Your task to perform on an android device: Go to ESPN.com Image 0: 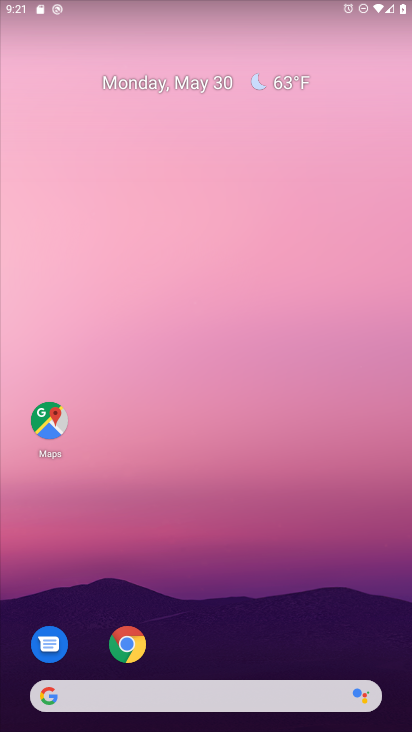
Step 0: drag from (216, 637) to (264, 4)
Your task to perform on an android device: Go to ESPN.com Image 1: 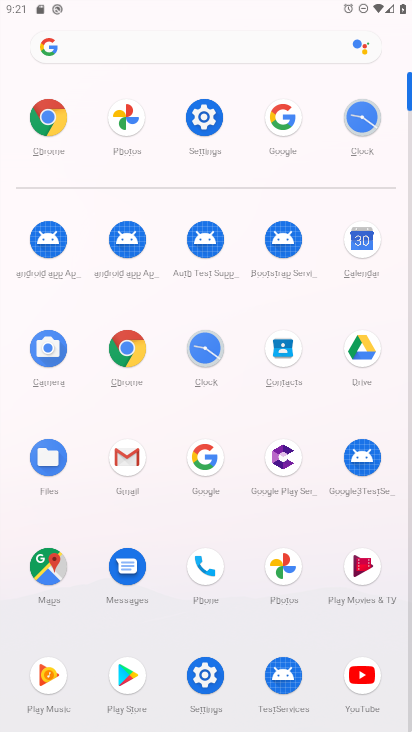
Step 1: click (290, 107)
Your task to perform on an android device: Go to ESPN.com Image 2: 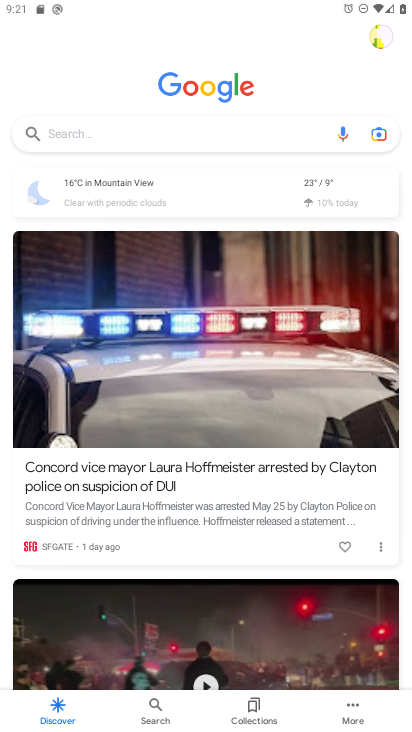
Step 2: click (134, 124)
Your task to perform on an android device: Go to ESPN.com Image 3: 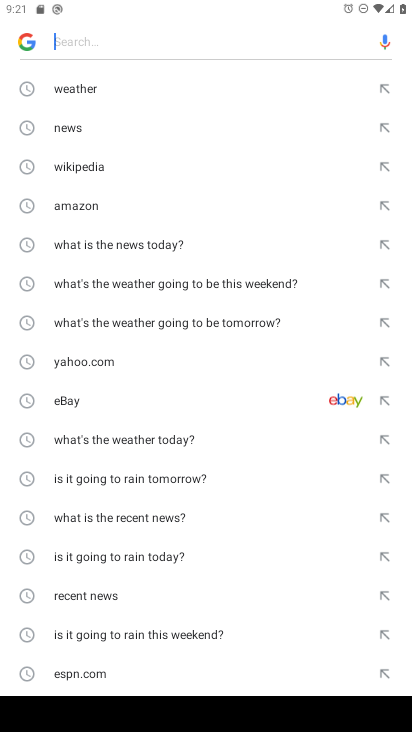
Step 3: click (92, 666)
Your task to perform on an android device: Go to ESPN.com Image 4: 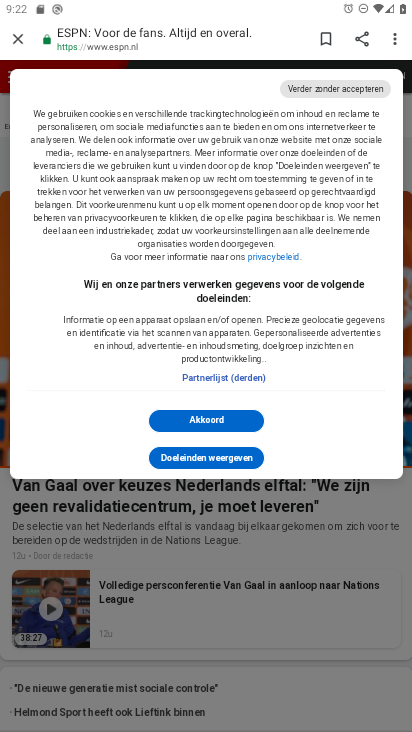
Step 4: task complete